Your task to perform on an android device: add a label to a message in the gmail app Image 0: 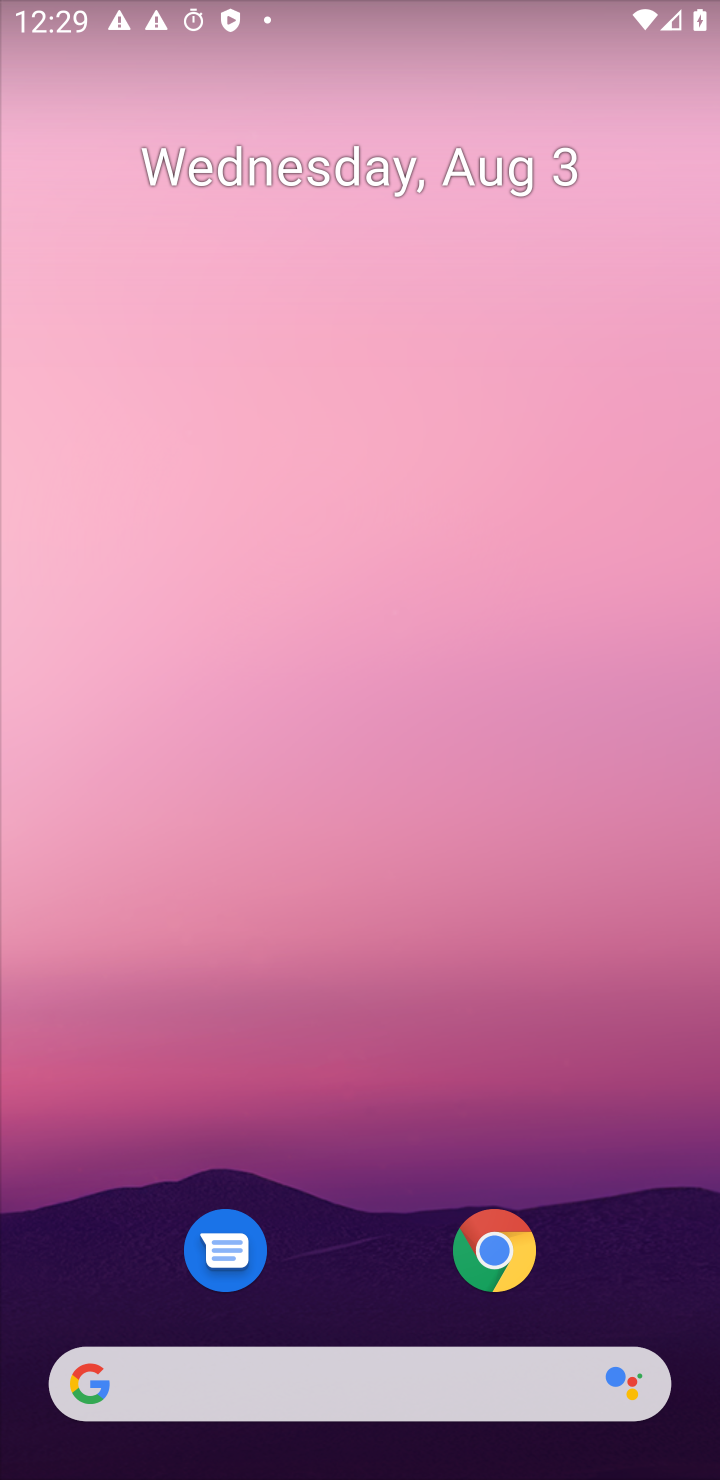
Step 0: drag from (434, 372) to (434, 245)
Your task to perform on an android device: add a label to a message in the gmail app Image 1: 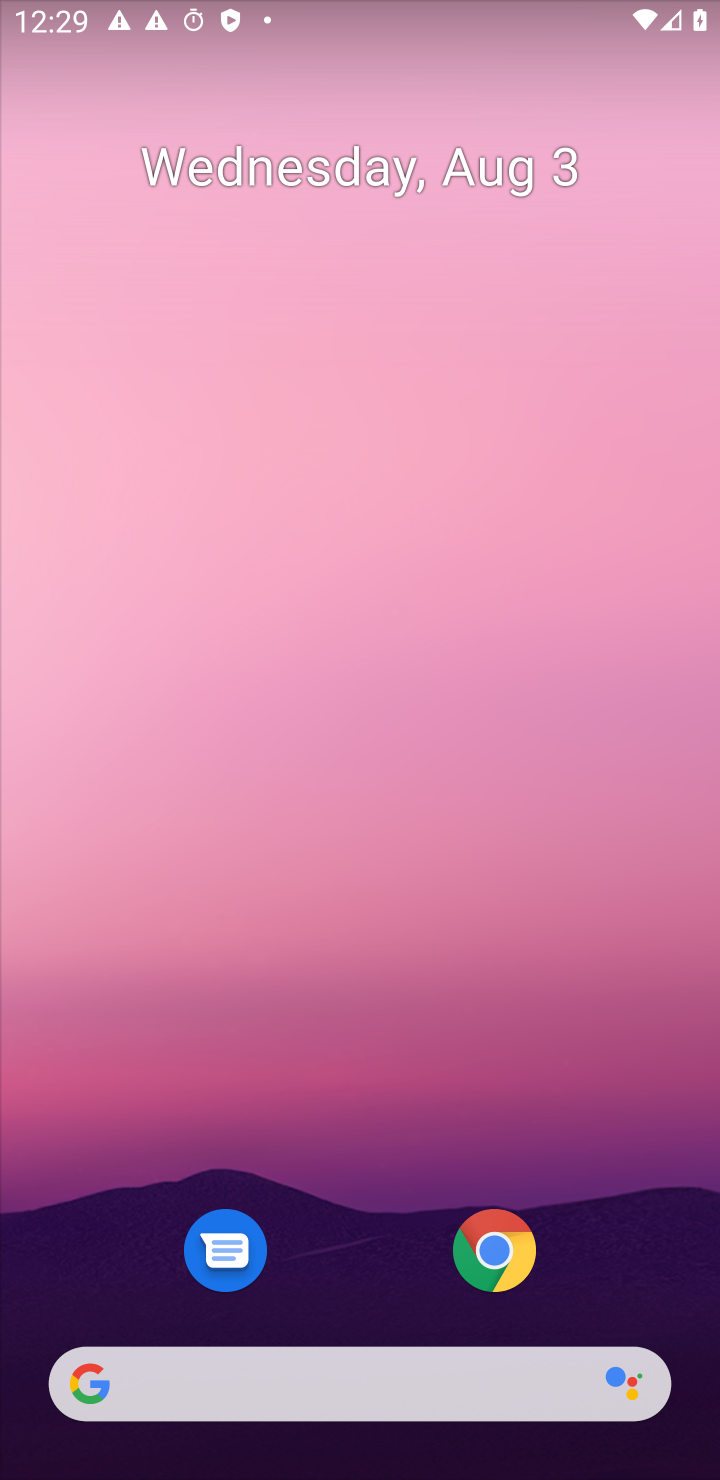
Step 1: drag from (333, 1175) to (270, 12)
Your task to perform on an android device: add a label to a message in the gmail app Image 2: 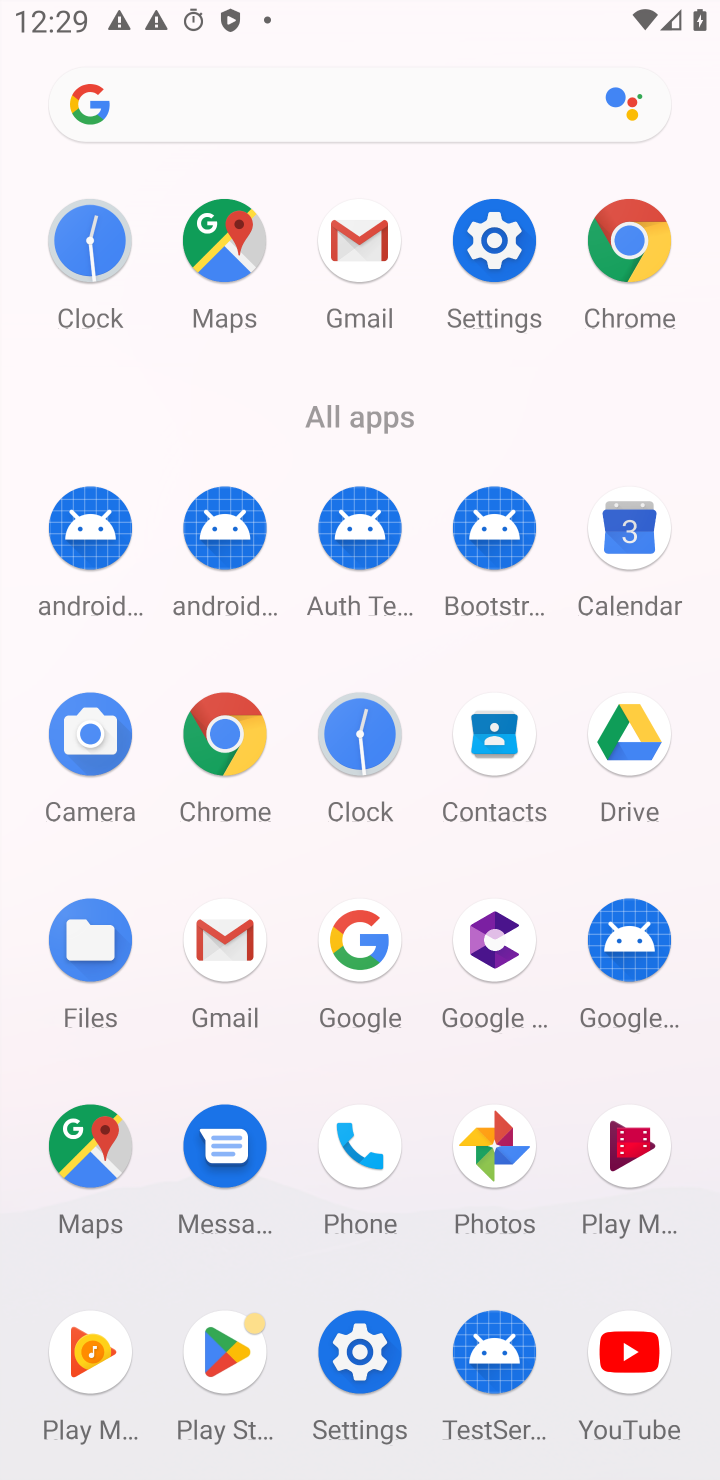
Step 2: click (351, 263)
Your task to perform on an android device: add a label to a message in the gmail app Image 3: 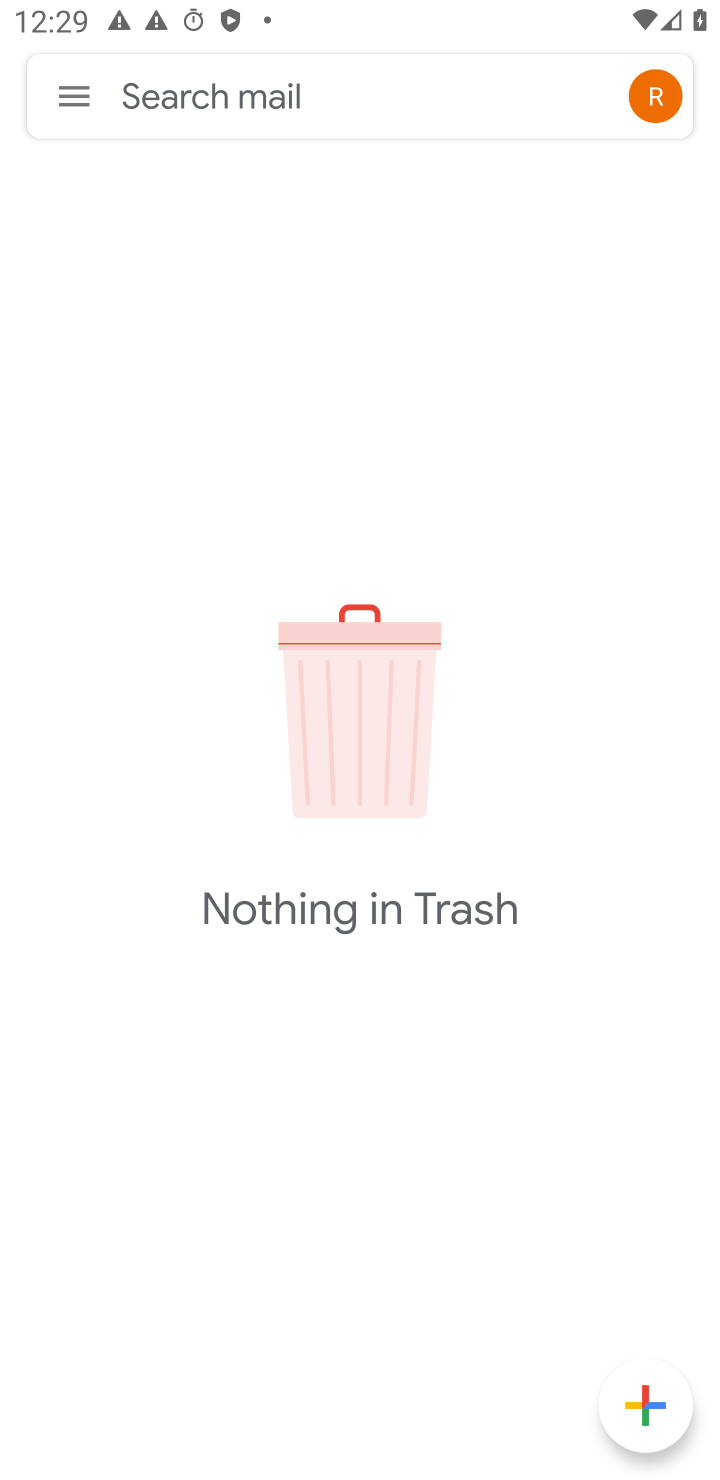
Step 3: click (84, 102)
Your task to perform on an android device: add a label to a message in the gmail app Image 4: 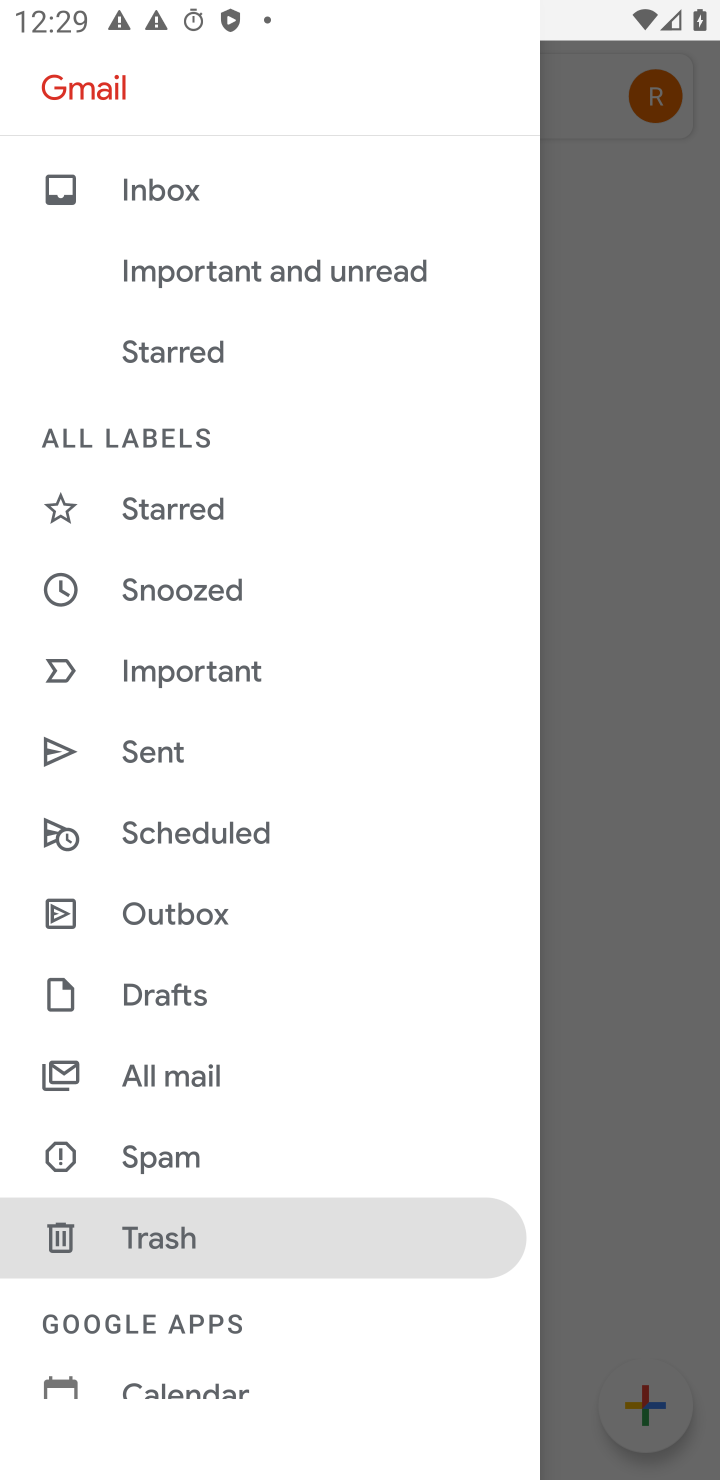
Step 4: click (184, 1084)
Your task to perform on an android device: add a label to a message in the gmail app Image 5: 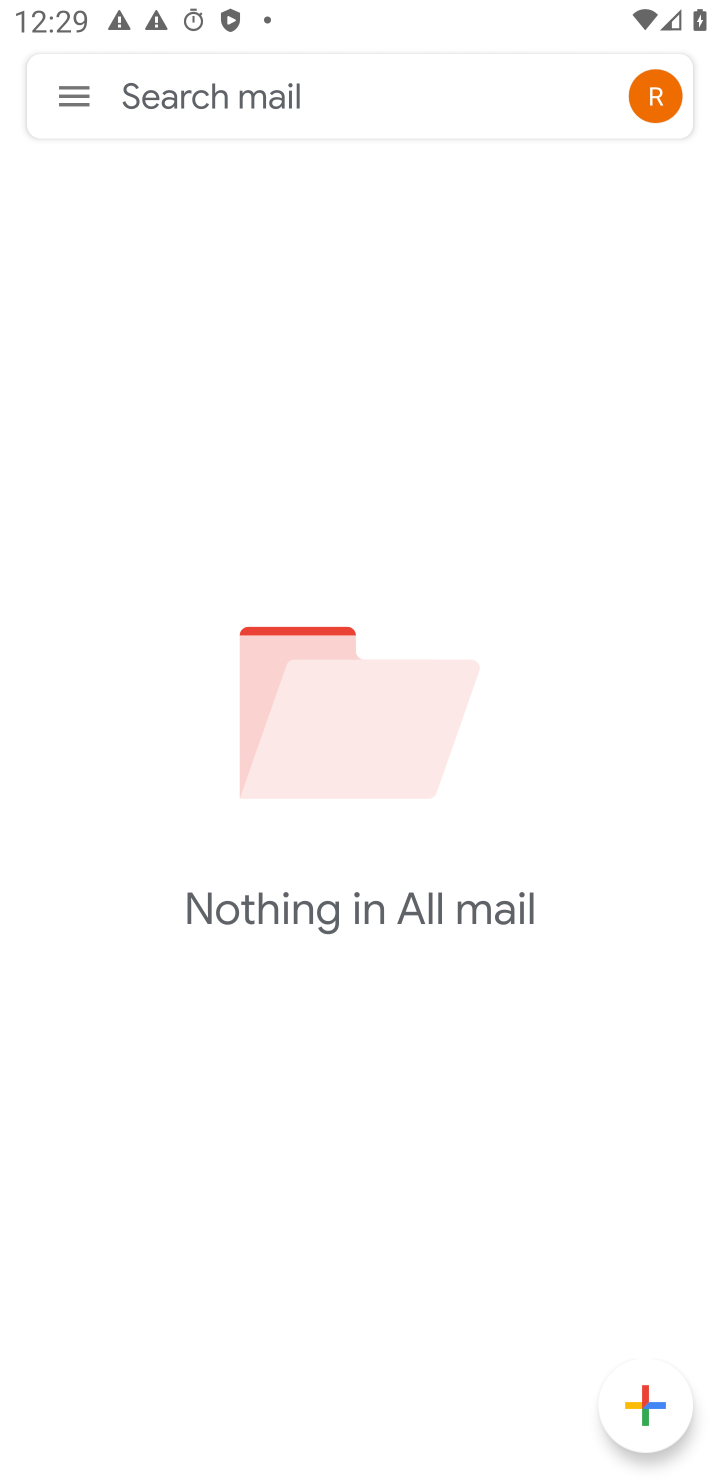
Step 5: task complete